Your task to perform on an android device: Check the news Image 0: 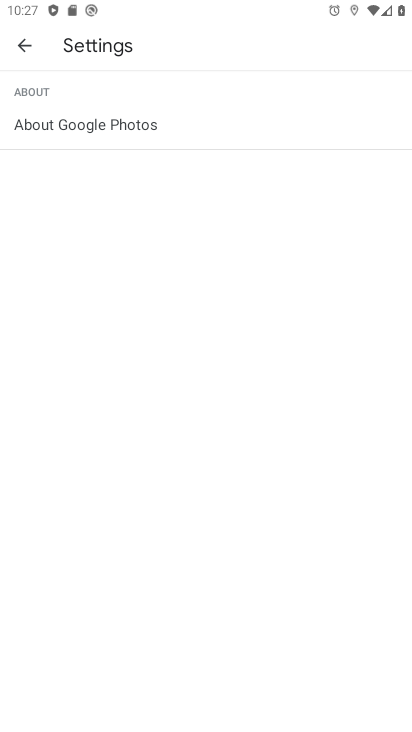
Step 0: press home button
Your task to perform on an android device: Check the news Image 1: 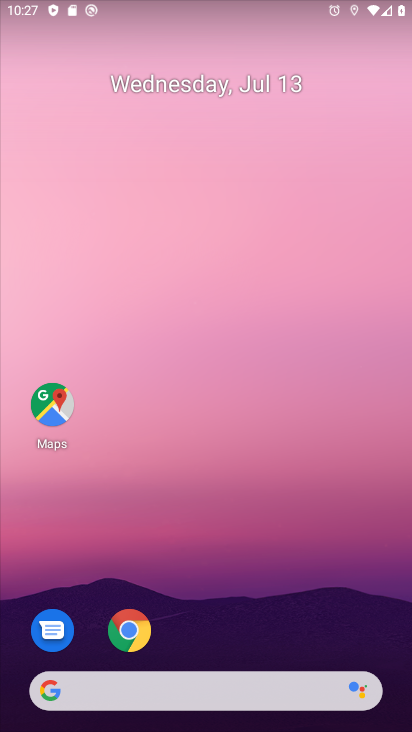
Step 1: click (189, 692)
Your task to perform on an android device: Check the news Image 2: 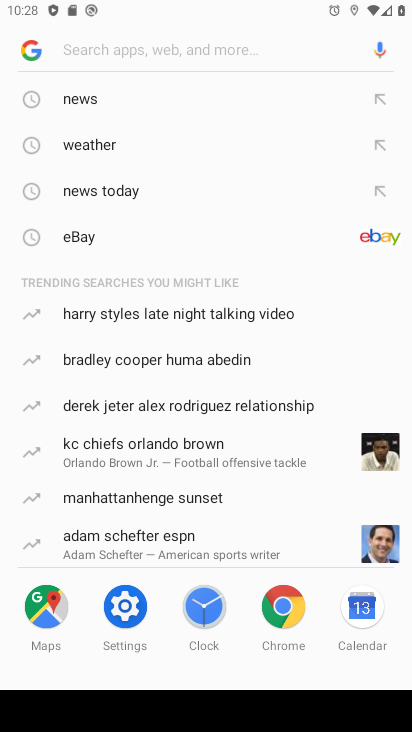
Step 2: click (136, 110)
Your task to perform on an android device: Check the news Image 3: 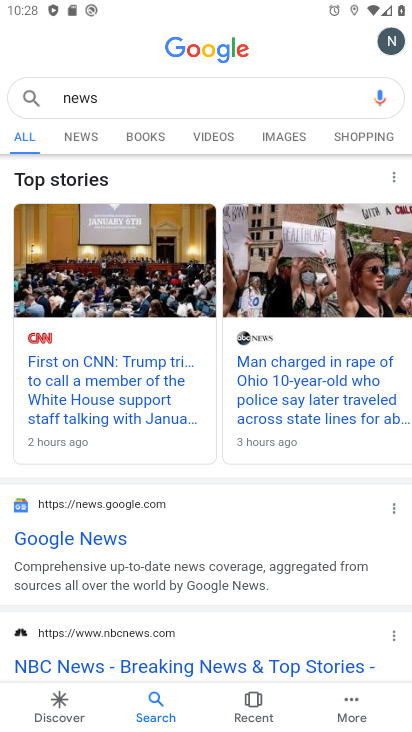
Step 3: task complete